Your task to perform on an android device: Search for vegetarian restaurants on Maps Image 0: 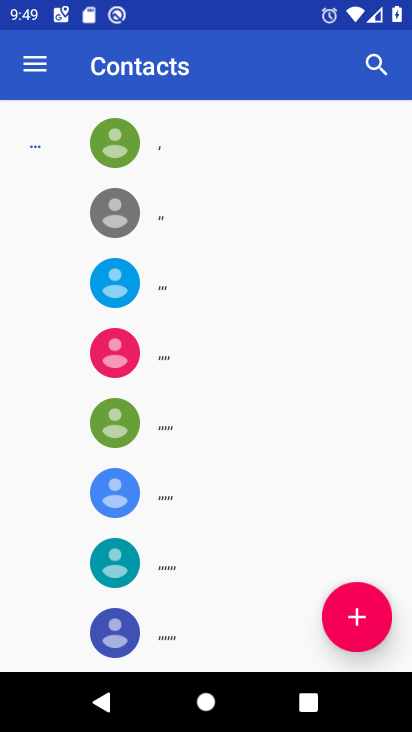
Step 0: press home button
Your task to perform on an android device: Search for vegetarian restaurants on Maps Image 1: 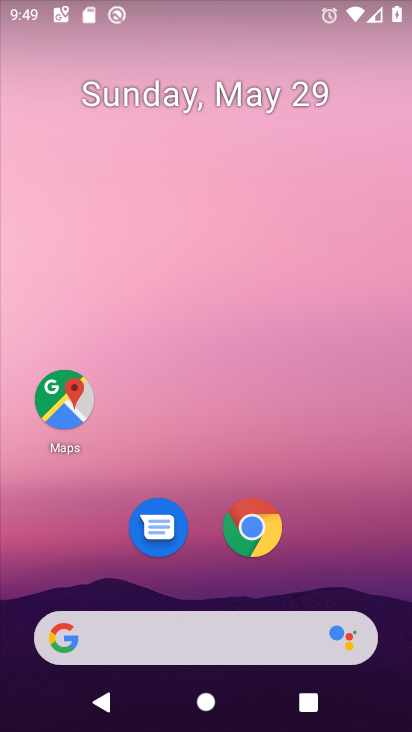
Step 1: click (71, 391)
Your task to perform on an android device: Search for vegetarian restaurants on Maps Image 2: 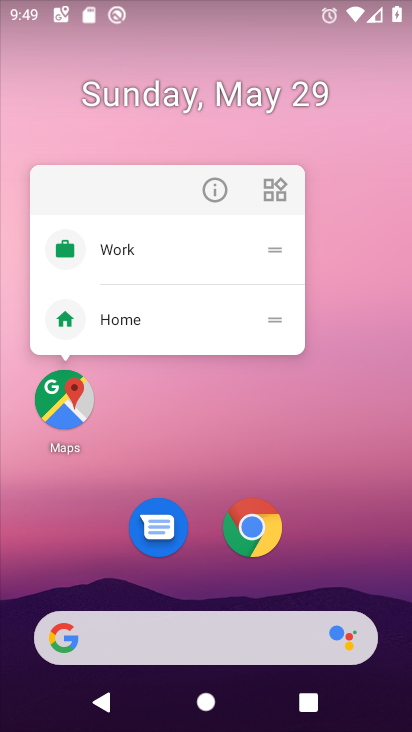
Step 2: click (64, 398)
Your task to perform on an android device: Search for vegetarian restaurants on Maps Image 3: 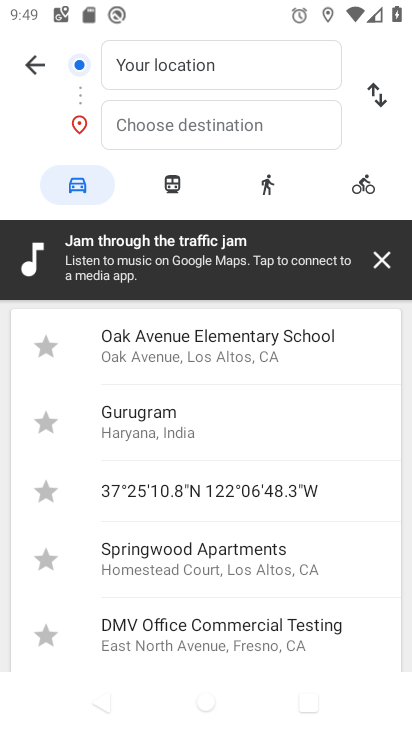
Step 3: click (34, 65)
Your task to perform on an android device: Search for vegetarian restaurants on Maps Image 4: 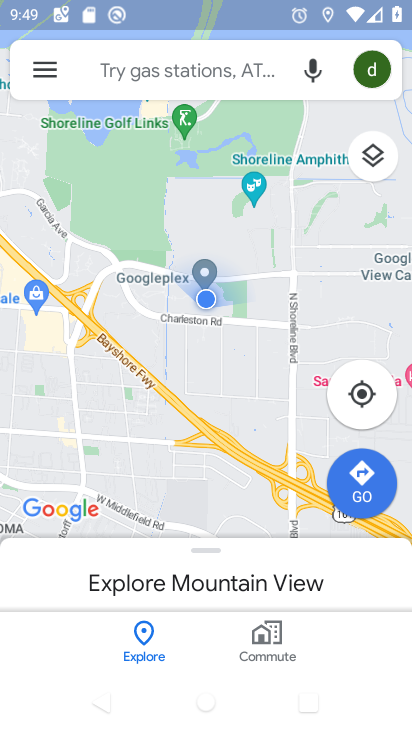
Step 4: click (128, 60)
Your task to perform on an android device: Search for vegetarian restaurants on Maps Image 5: 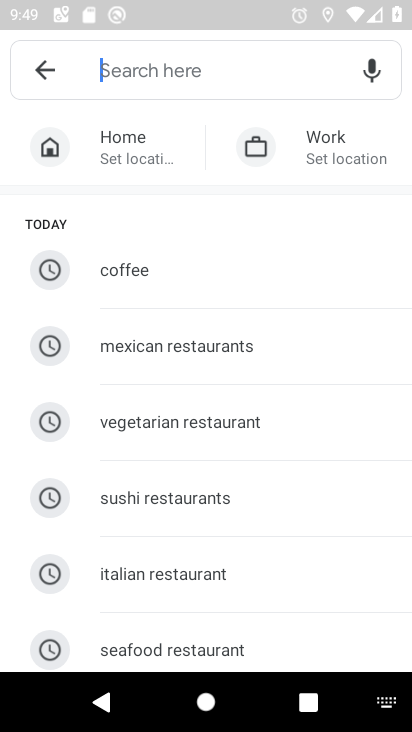
Step 5: click (203, 425)
Your task to perform on an android device: Search for vegetarian restaurants on Maps Image 6: 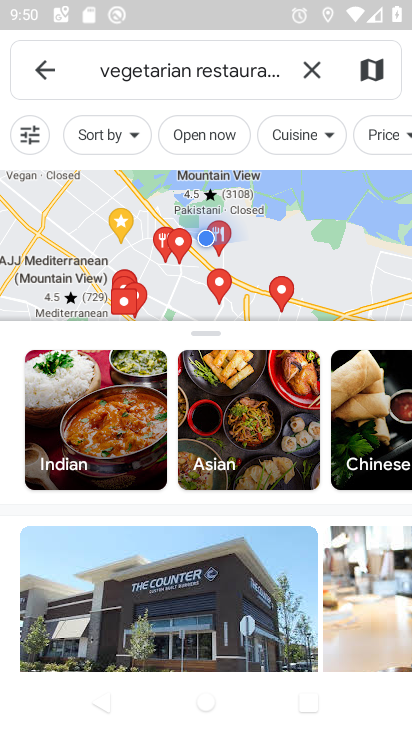
Step 6: task complete